Your task to perform on an android device: find snoozed emails in the gmail app Image 0: 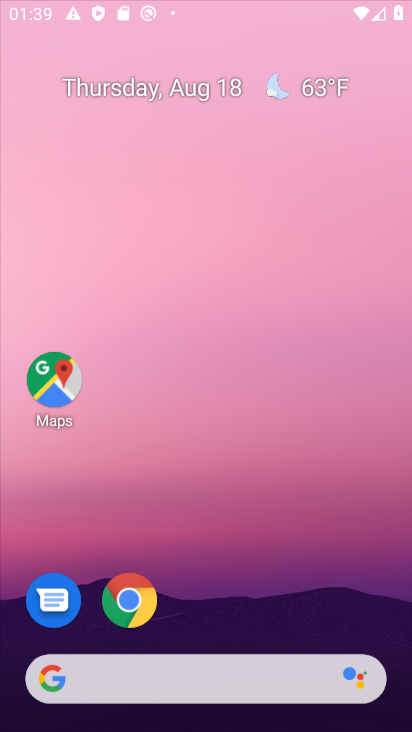
Step 0: click (211, 219)
Your task to perform on an android device: find snoozed emails in the gmail app Image 1: 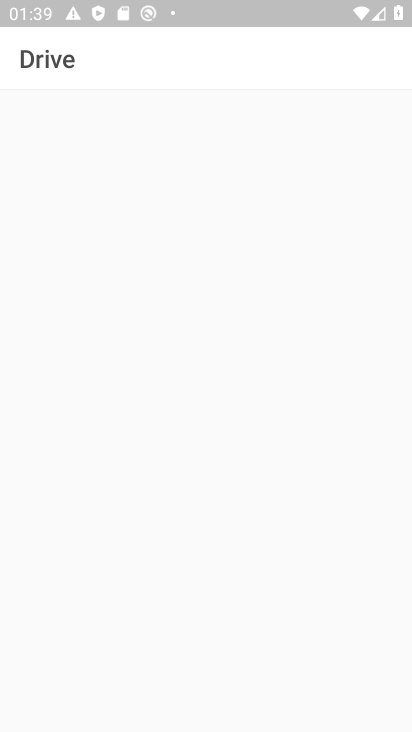
Step 1: press home button
Your task to perform on an android device: find snoozed emails in the gmail app Image 2: 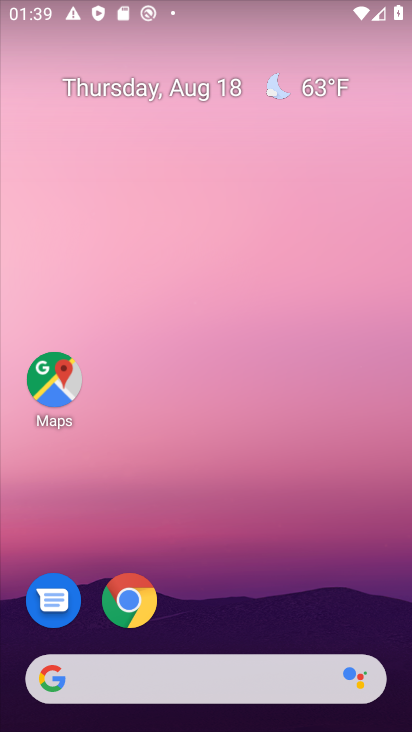
Step 2: drag from (233, 601) to (248, 212)
Your task to perform on an android device: find snoozed emails in the gmail app Image 3: 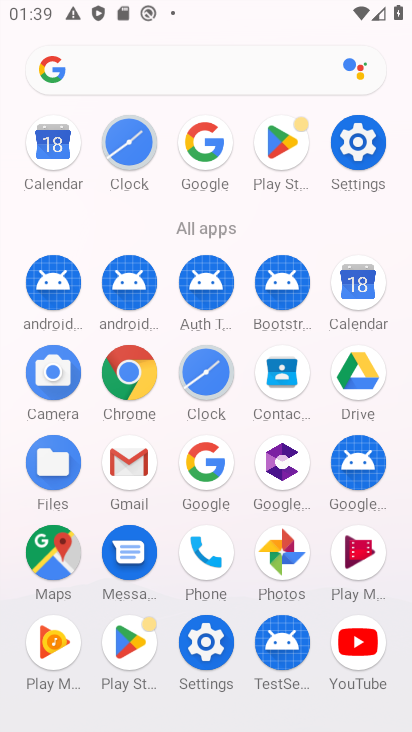
Step 3: click (131, 469)
Your task to perform on an android device: find snoozed emails in the gmail app Image 4: 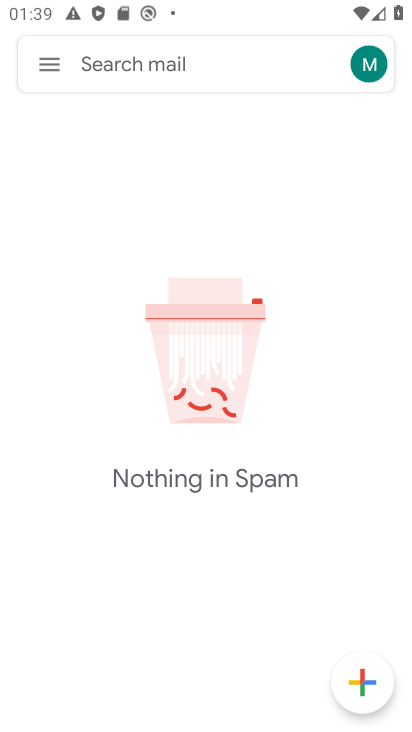
Step 4: click (46, 64)
Your task to perform on an android device: find snoozed emails in the gmail app Image 5: 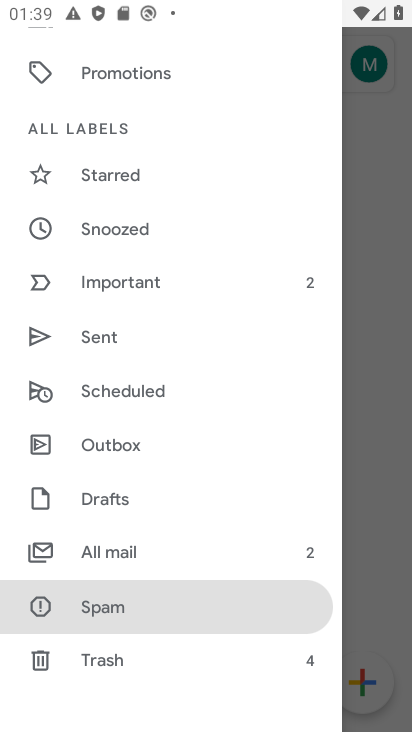
Step 5: click (88, 222)
Your task to perform on an android device: find snoozed emails in the gmail app Image 6: 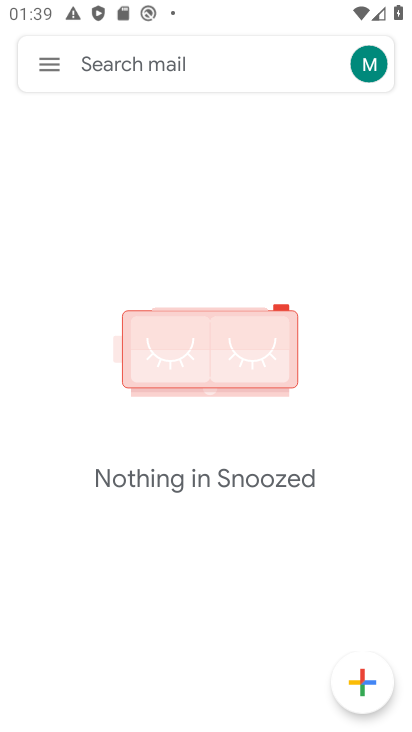
Step 6: task complete